Your task to perform on an android device: toggle wifi Image 0: 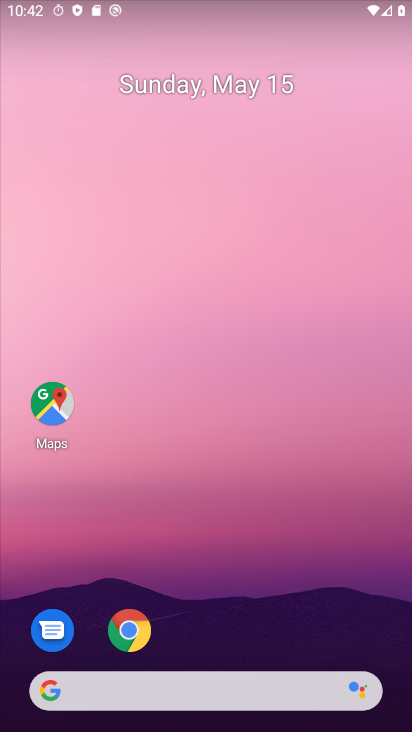
Step 0: drag from (107, 10) to (90, 611)
Your task to perform on an android device: toggle wifi Image 1: 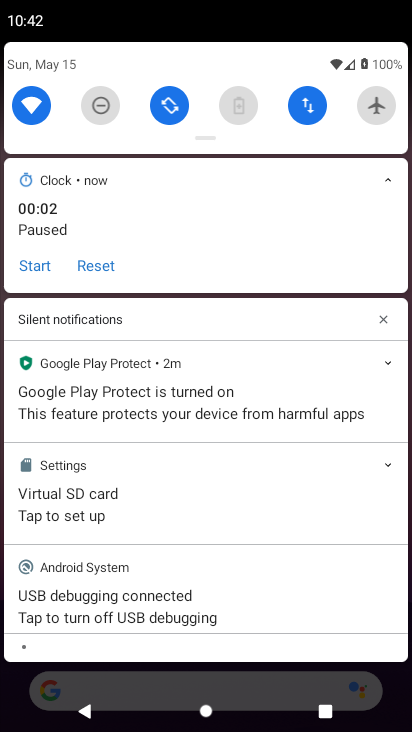
Step 1: click (36, 99)
Your task to perform on an android device: toggle wifi Image 2: 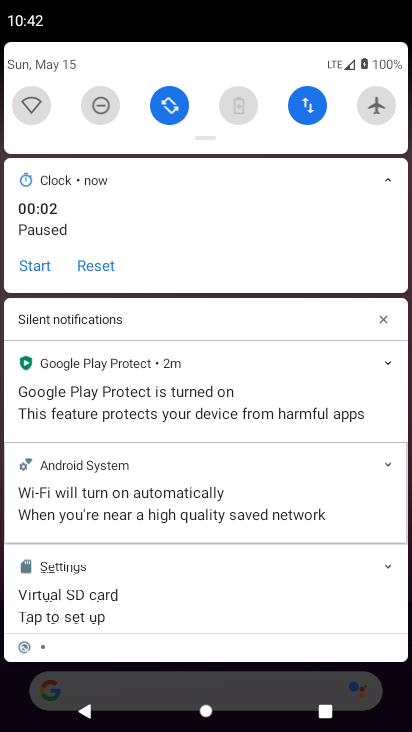
Step 2: task complete